Your task to perform on an android device: open device folders in google photos Image 0: 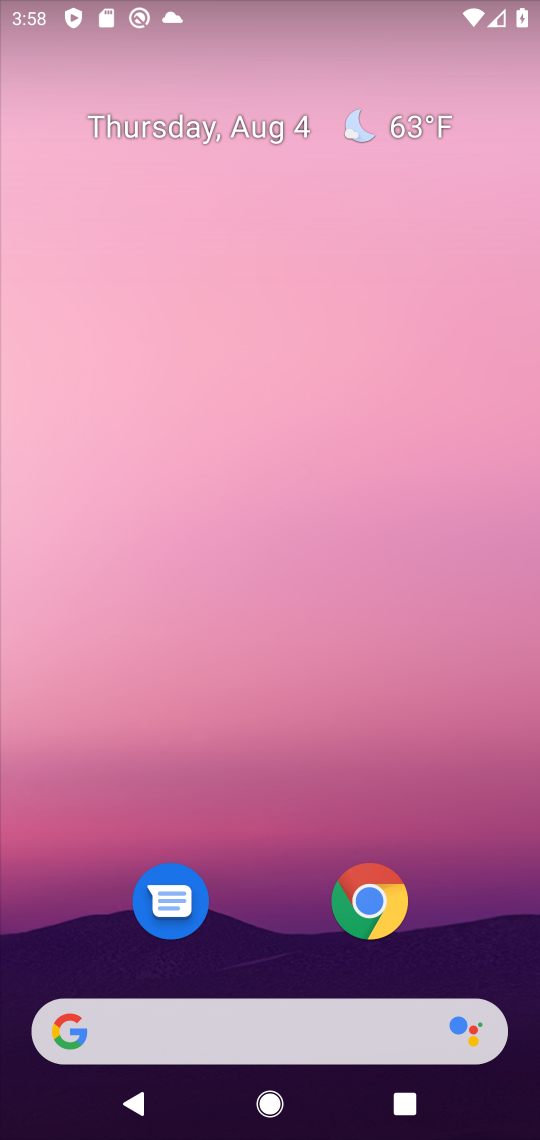
Step 0: drag from (293, 946) to (284, 107)
Your task to perform on an android device: open device folders in google photos Image 1: 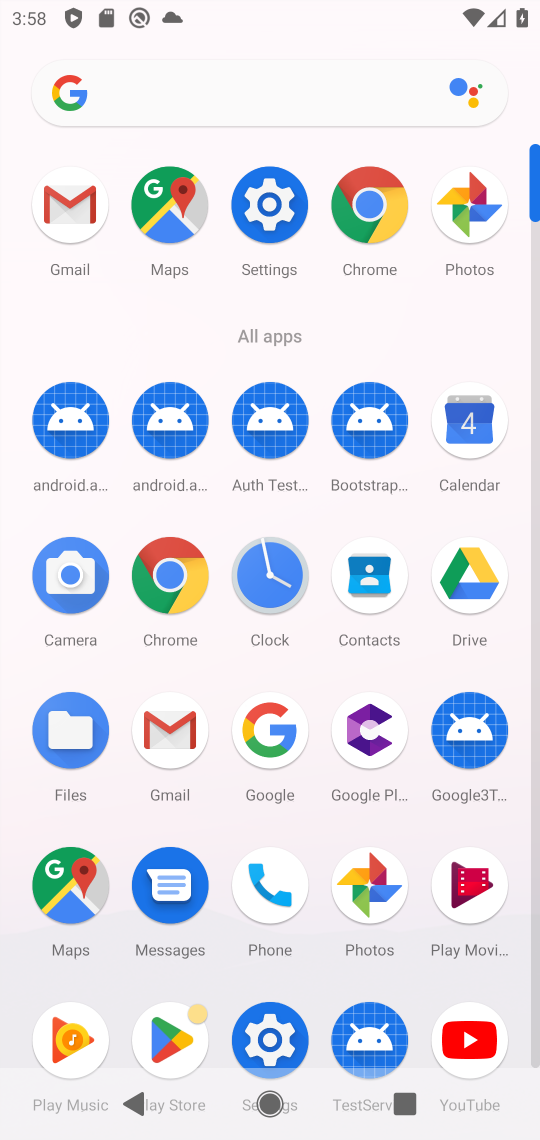
Step 1: click (461, 196)
Your task to perform on an android device: open device folders in google photos Image 2: 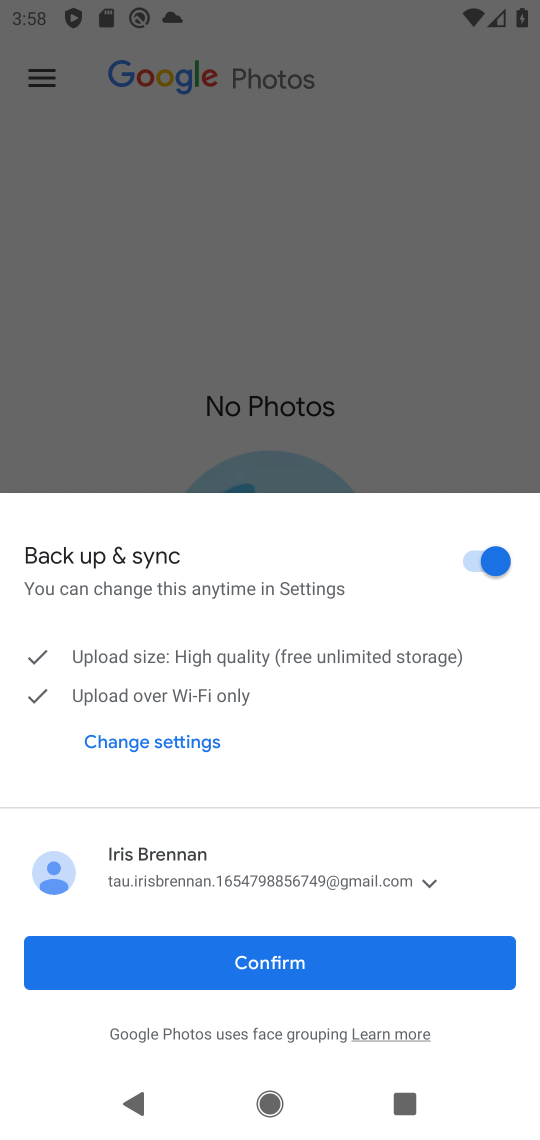
Step 2: press home button
Your task to perform on an android device: open device folders in google photos Image 3: 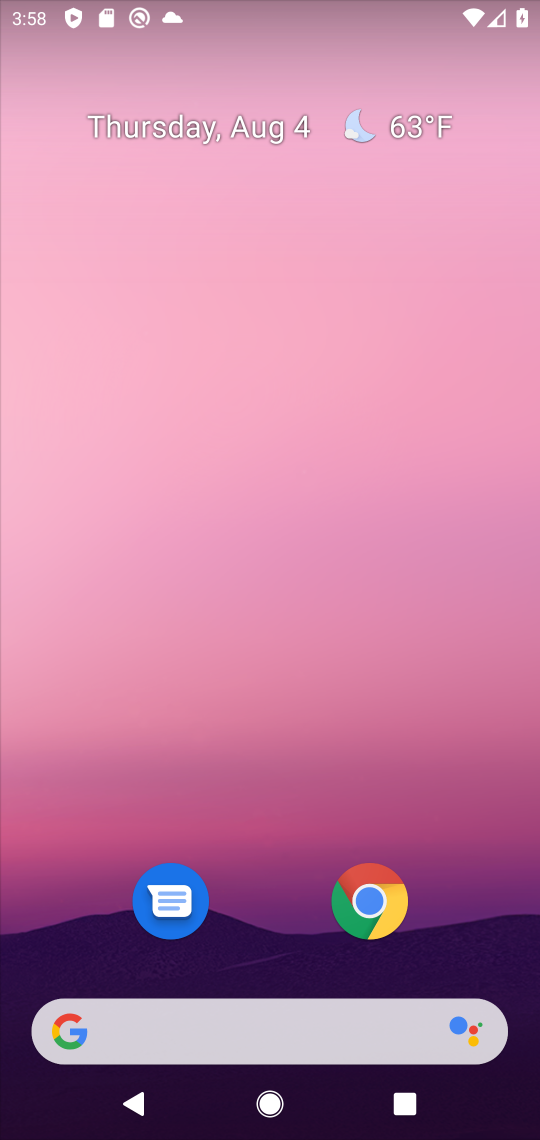
Step 3: drag from (317, 366) to (308, 191)
Your task to perform on an android device: open device folders in google photos Image 4: 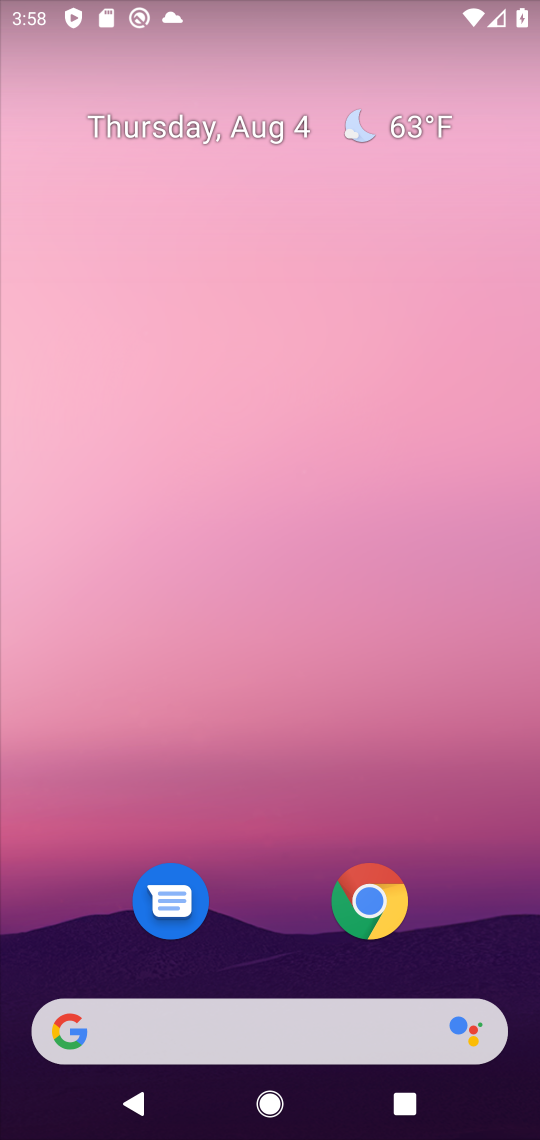
Step 4: drag from (271, 910) to (260, 3)
Your task to perform on an android device: open device folders in google photos Image 5: 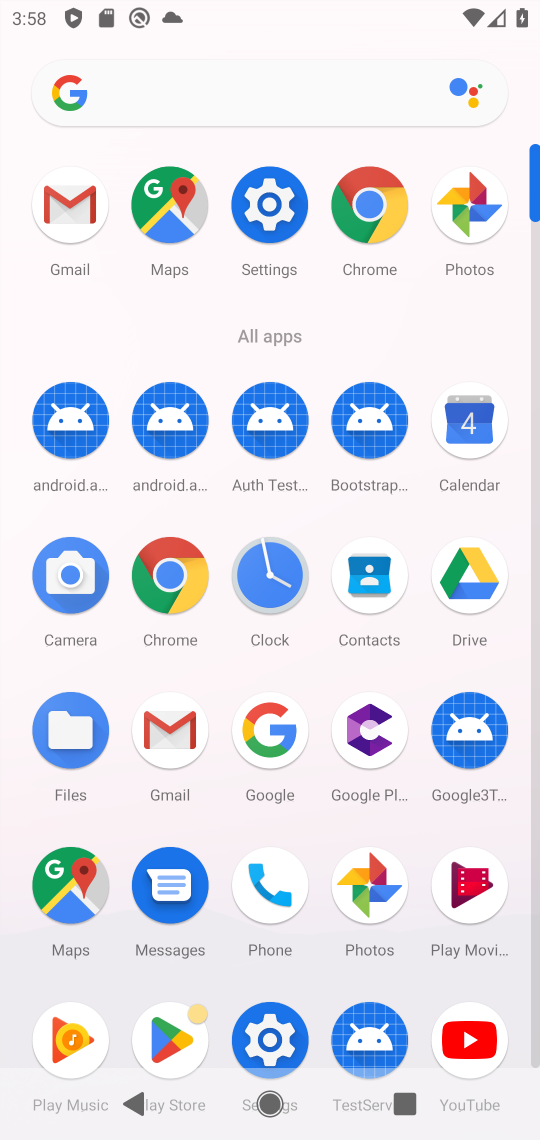
Step 5: click (475, 209)
Your task to perform on an android device: open device folders in google photos Image 6: 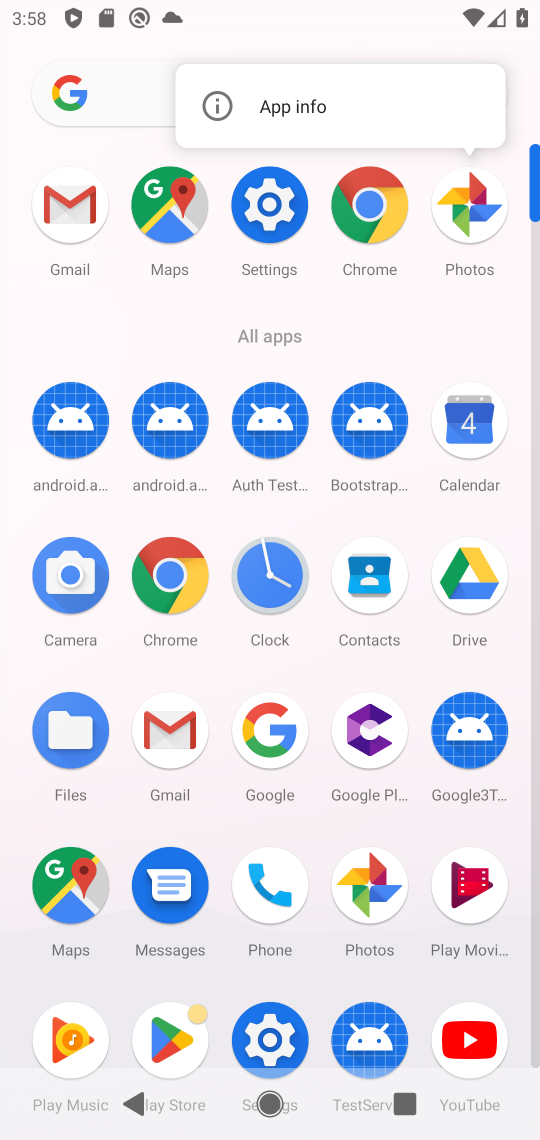
Step 6: click (466, 200)
Your task to perform on an android device: open device folders in google photos Image 7: 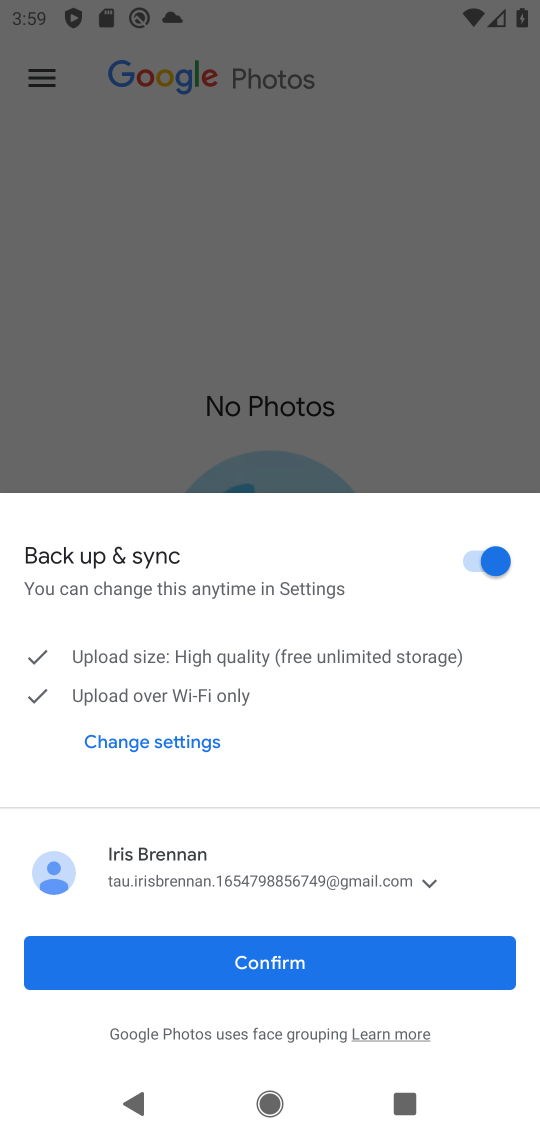
Step 7: click (325, 979)
Your task to perform on an android device: open device folders in google photos Image 8: 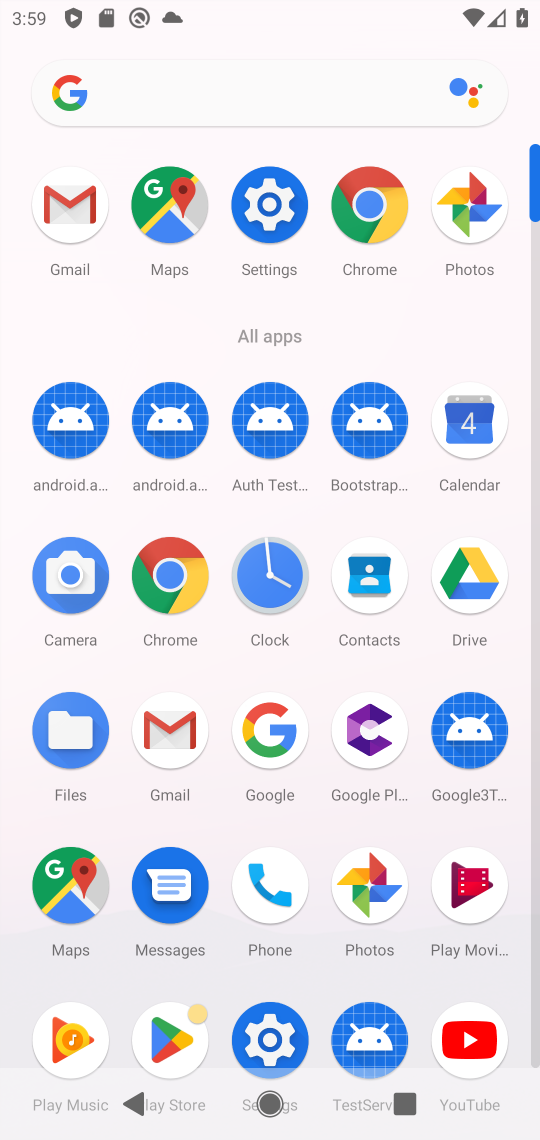
Step 8: click (369, 881)
Your task to perform on an android device: open device folders in google photos Image 9: 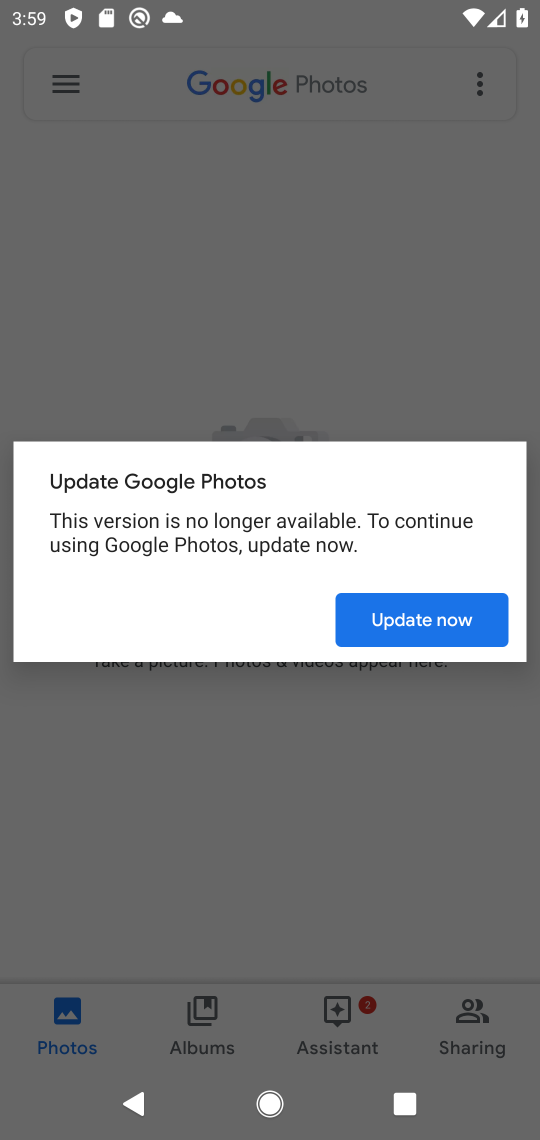
Step 9: click (446, 614)
Your task to perform on an android device: open device folders in google photos Image 10: 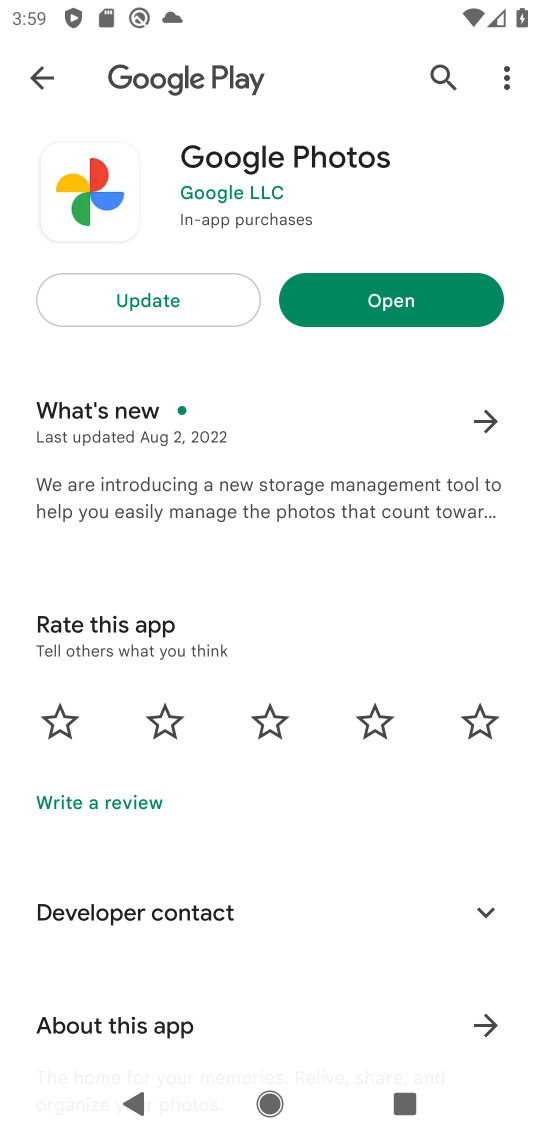
Step 10: click (321, 299)
Your task to perform on an android device: open device folders in google photos Image 11: 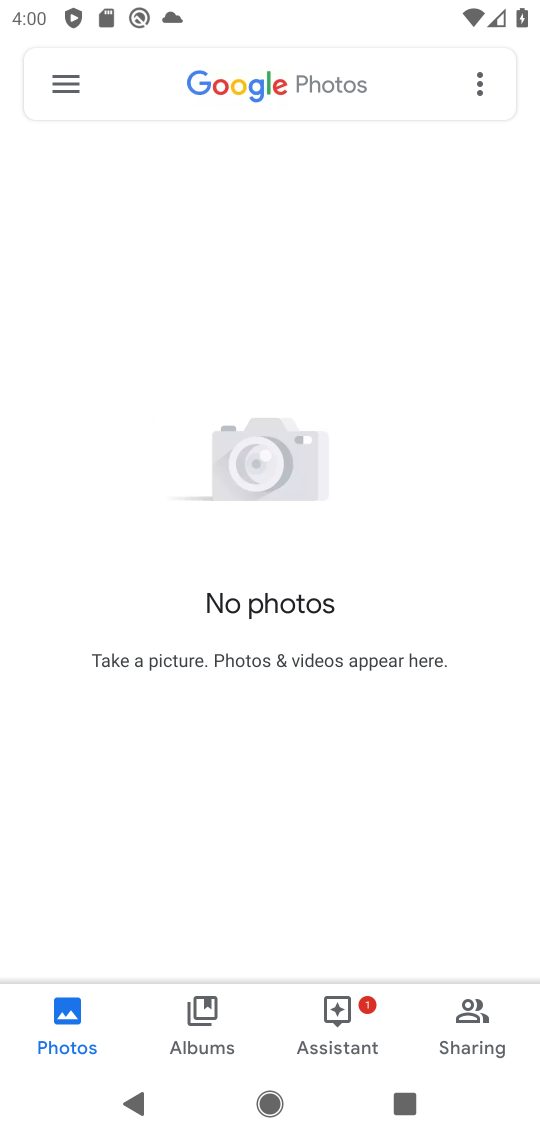
Step 11: click (60, 83)
Your task to perform on an android device: open device folders in google photos Image 12: 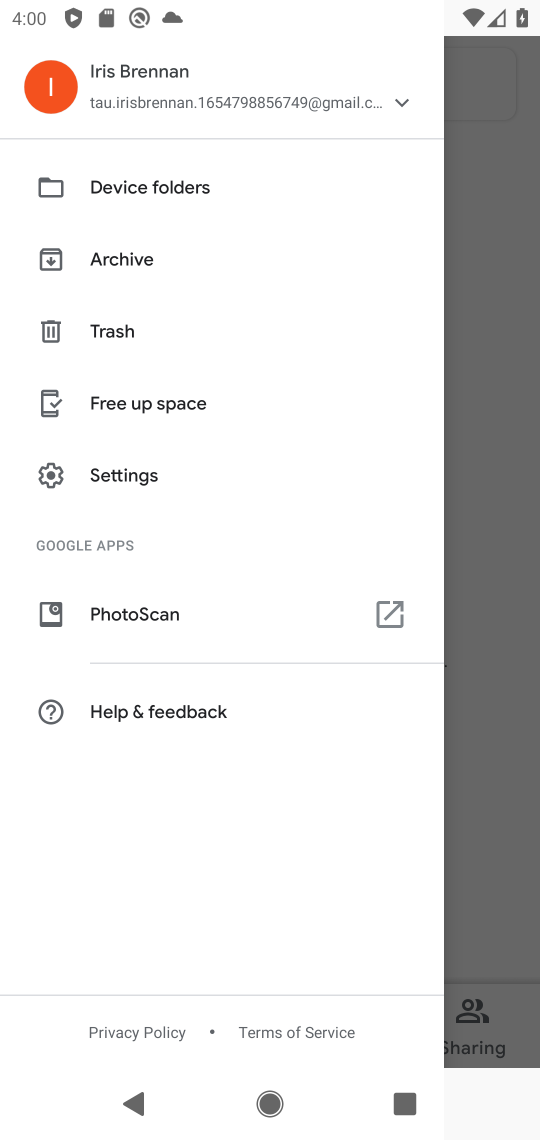
Step 12: click (130, 188)
Your task to perform on an android device: open device folders in google photos Image 13: 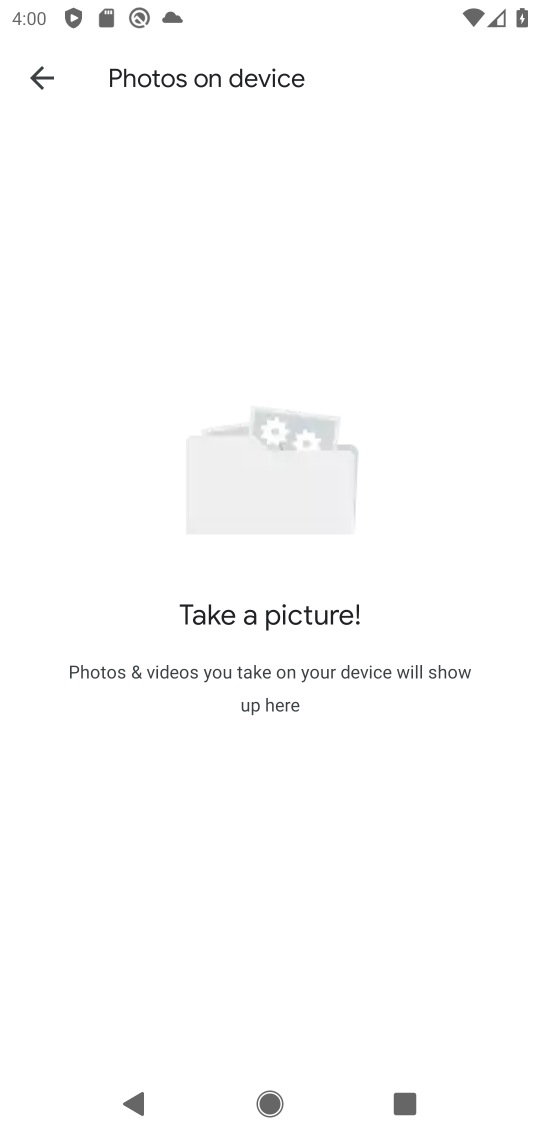
Step 13: task complete